Your task to perform on an android device: Is it going to rain tomorrow? Image 0: 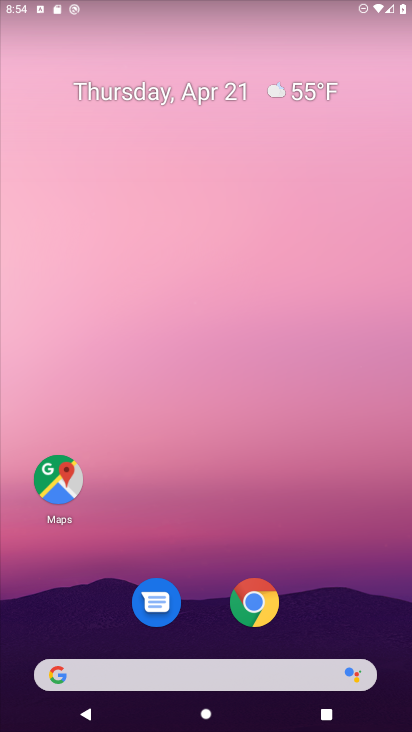
Step 0: click (134, 666)
Your task to perform on an android device: Is it going to rain tomorrow? Image 1: 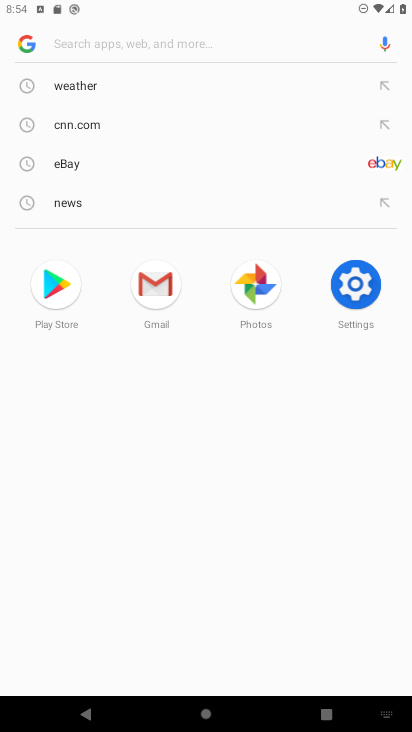
Step 1: click (88, 93)
Your task to perform on an android device: Is it going to rain tomorrow? Image 2: 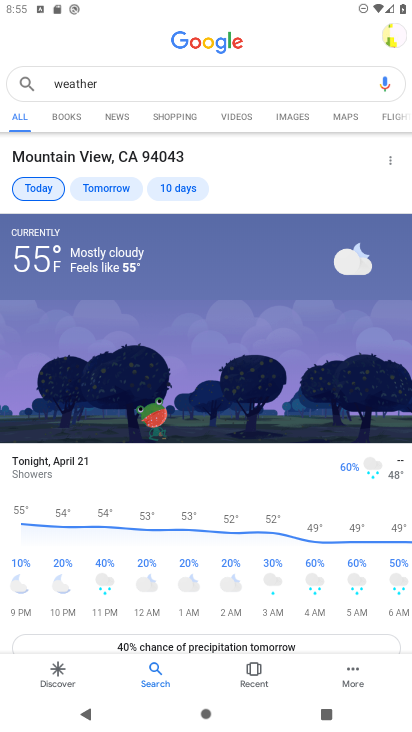
Step 2: click (117, 191)
Your task to perform on an android device: Is it going to rain tomorrow? Image 3: 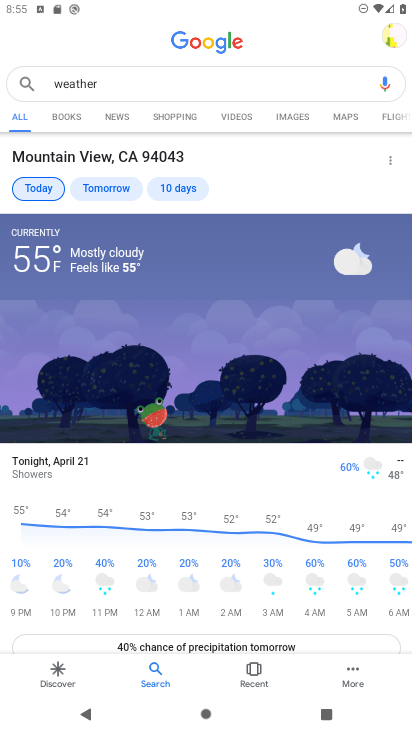
Step 3: click (117, 191)
Your task to perform on an android device: Is it going to rain tomorrow? Image 4: 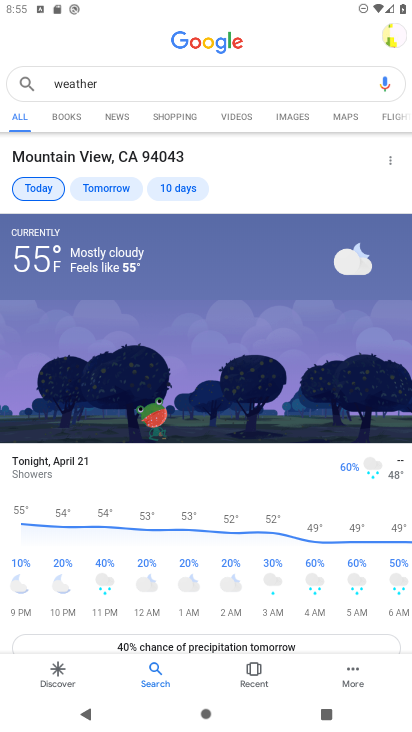
Step 4: click (99, 183)
Your task to perform on an android device: Is it going to rain tomorrow? Image 5: 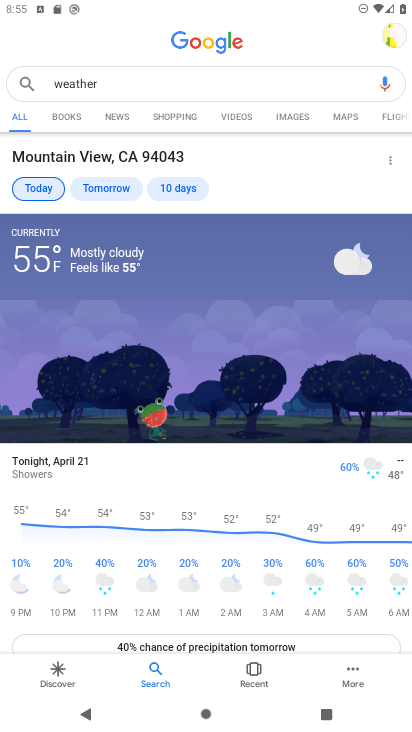
Step 5: click (99, 183)
Your task to perform on an android device: Is it going to rain tomorrow? Image 6: 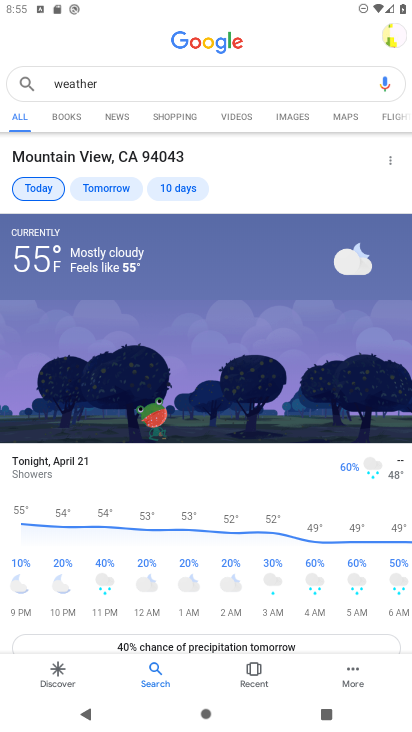
Step 6: click (105, 187)
Your task to perform on an android device: Is it going to rain tomorrow? Image 7: 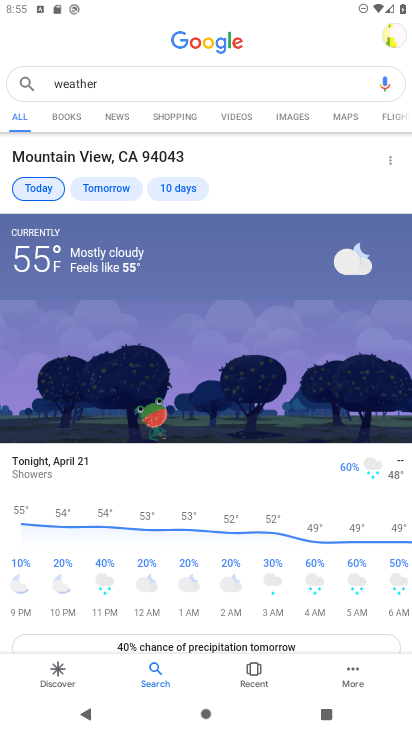
Step 7: click (105, 187)
Your task to perform on an android device: Is it going to rain tomorrow? Image 8: 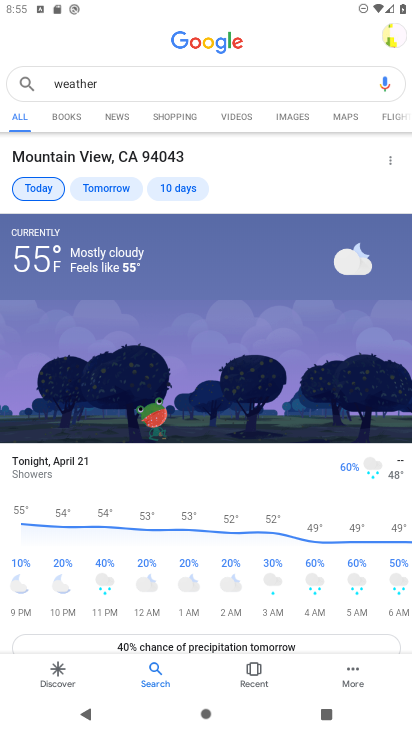
Step 8: click (105, 187)
Your task to perform on an android device: Is it going to rain tomorrow? Image 9: 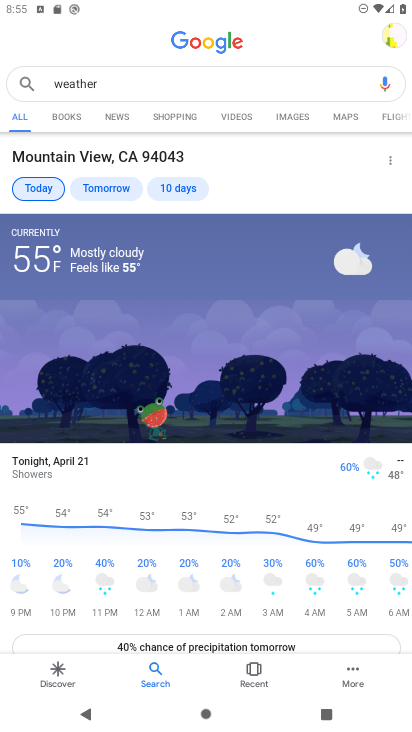
Step 9: click (105, 187)
Your task to perform on an android device: Is it going to rain tomorrow? Image 10: 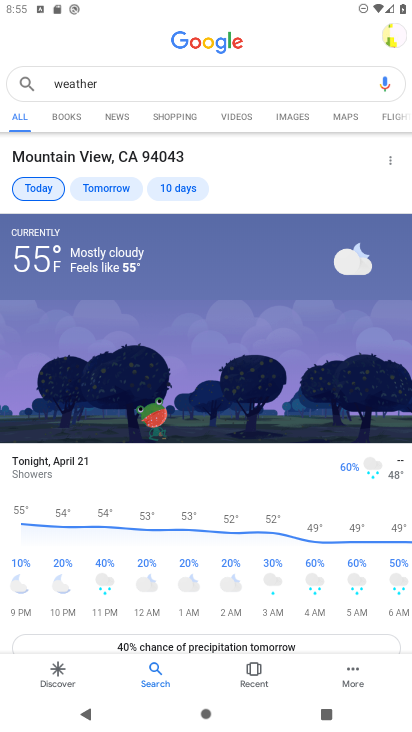
Step 10: click (105, 187)
Your task to perform on an android device: Is it going to rain tomorrow? Image 11: 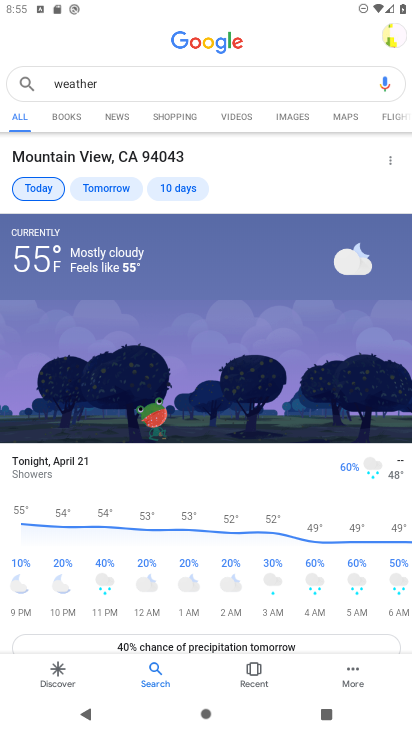
Step 11: click (110, 196)
Your task to perform on an android device: Is it going to rain tomorrow? Image 12: 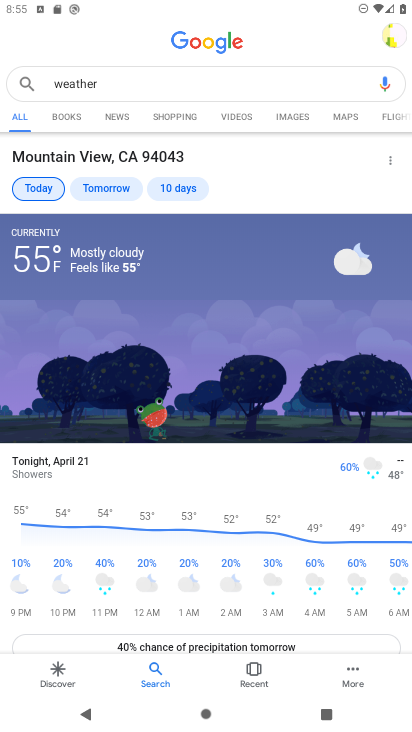
Step 12: click (110, 196)
Your task to perform on an android device: Is it going to rain tomorrow? Image 13: 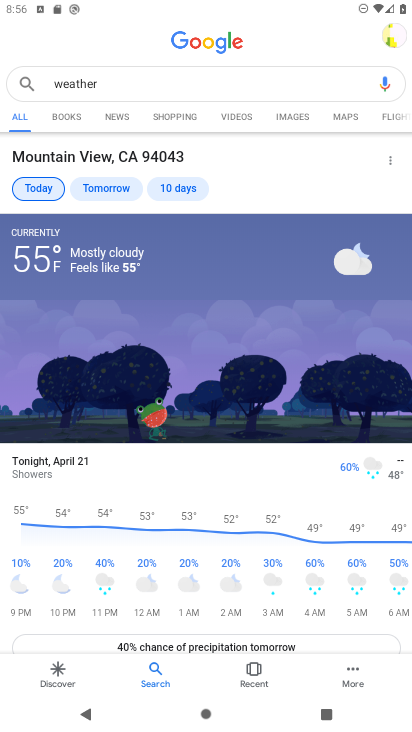
Step 13: click (127, 191)
Your task to perform on an android device: Is it going to rain tomorrow? Image 14: 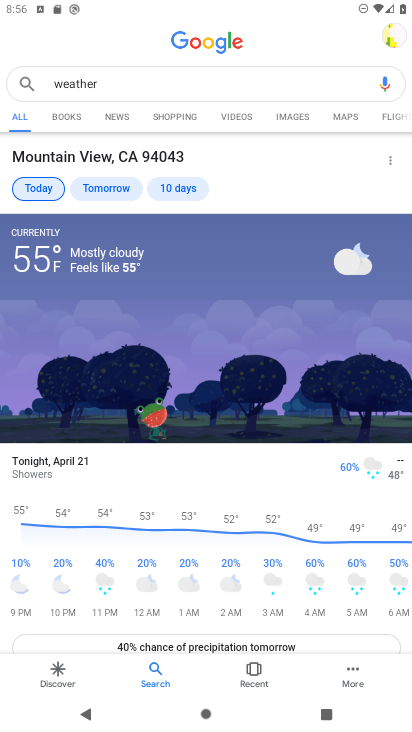
Step 14: click (86, 179)
Your task to perform on an android device: Is it going to rain tomorrow? Image 15: 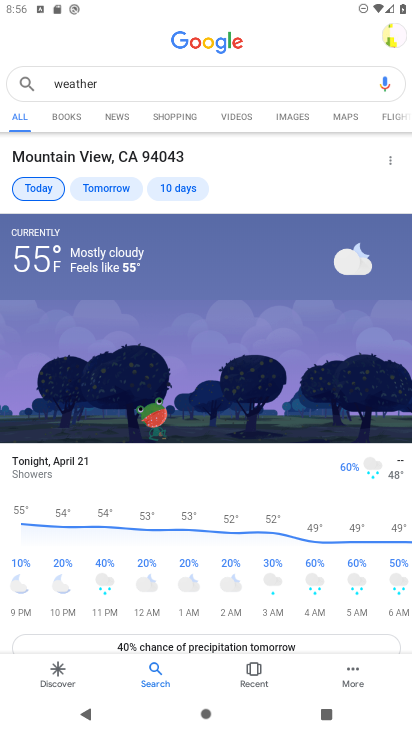
Step 15: click (86, 179)
Your task to perform on an android device: Is it going to rain tomorrow? Image 16: 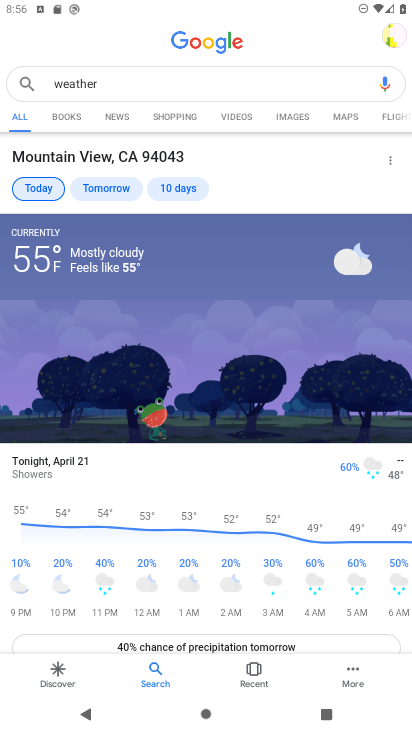
Step 16: click (92, 186)
Your task to perform on an android device: Is it going to rain tomorrow? Image 17: 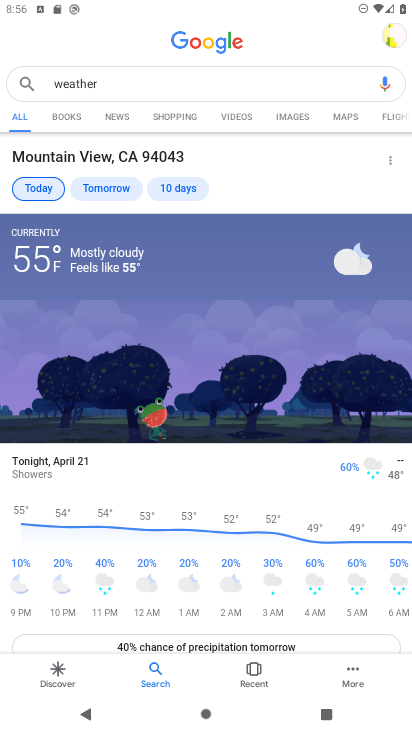
Step 17: click (92, 186)
Your task to perform on an android device: Is it going to rain tomorrow? Image 18: 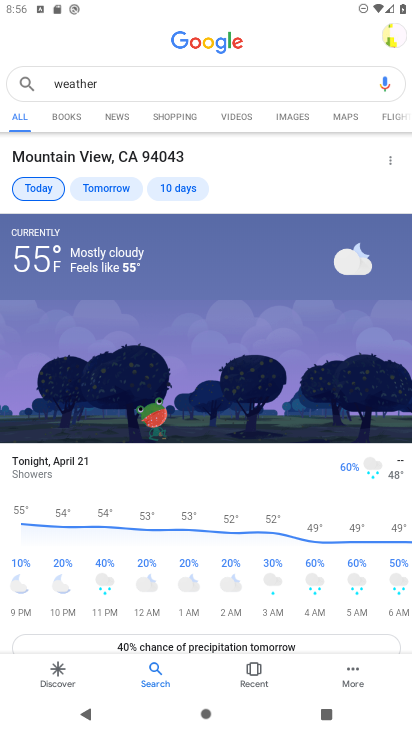
Step 18: click (92, 186)
Your task to perform on an android device: Is it going to rain tomorrow? Image 19: 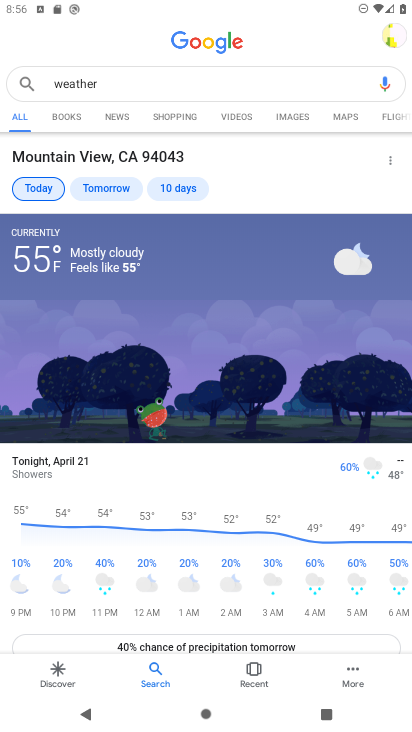
Step 19: click (92, 186)
Your task to perform on an android device: Is it going to rain tomorrow? Image 20: 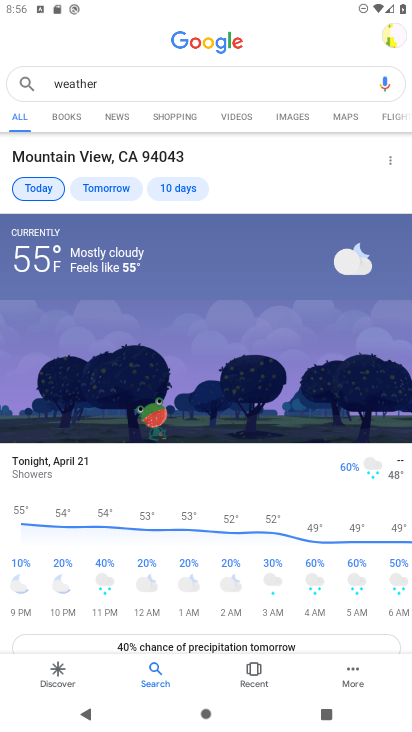
Step 20: click (92, 186)
Your task to perform on an android device: Is it going to rain tomorrow? Image 21: 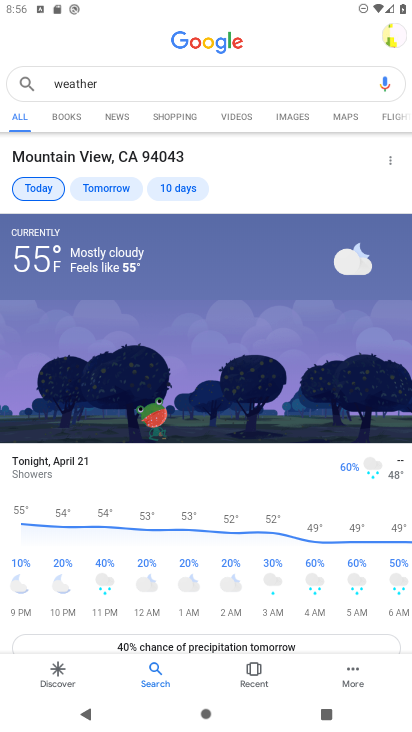
Step 21: click (107, 196)
Your task to perform on an android device: Is it going to rain tomorrow? Image 22: 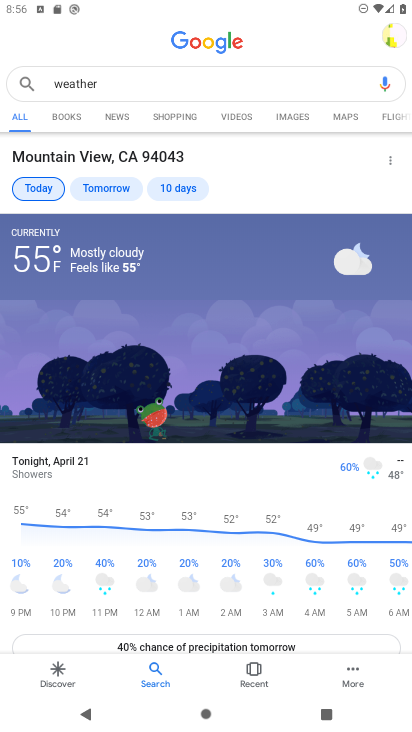
Step 22: click (107, 196)
Your task to perform on an android device: Is it going to rain tomorrow? Image 23: 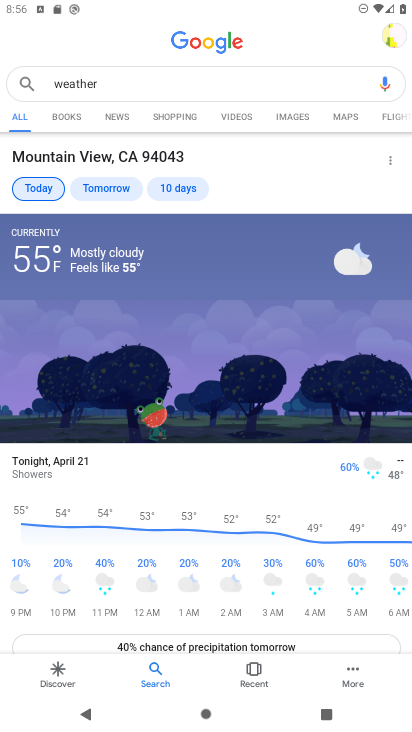
Step 23: click (107, 196)
Your task to perform on an android device: Is it going to rain tomorrow? Image 24: 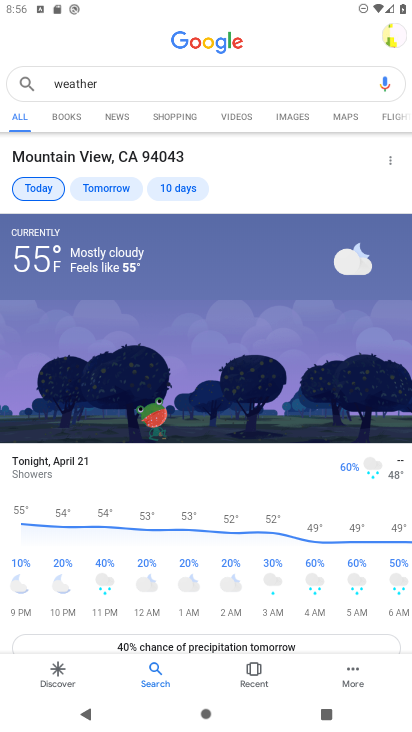
Step 24: click (107, 196)
Your task to perform on an android device: Is it going to rain tomorrow? Image 25: 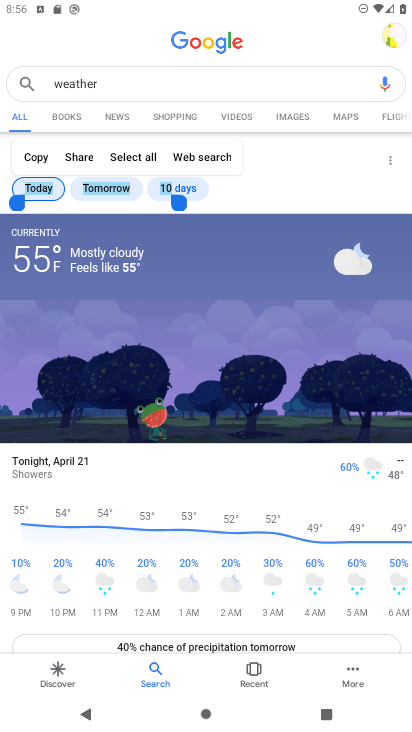
Step 25: click (107, 196)
Your task to perform on an android device: Is it going to rain tomorrow? Image 26: 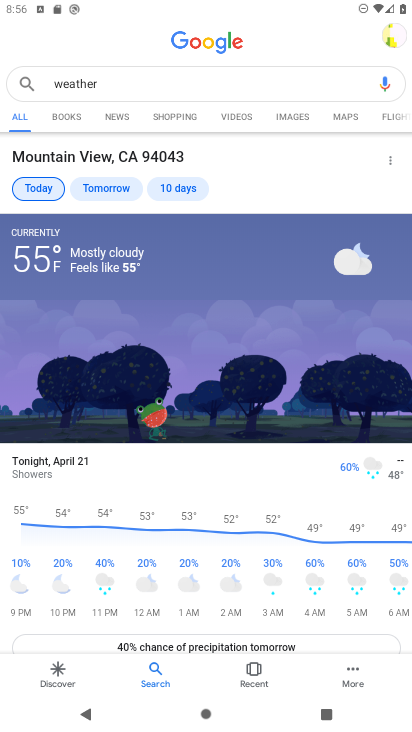
Step 26: click (106, 195)
Your task to perform on an android device: Is it going to rain tomorrow? Image 27: 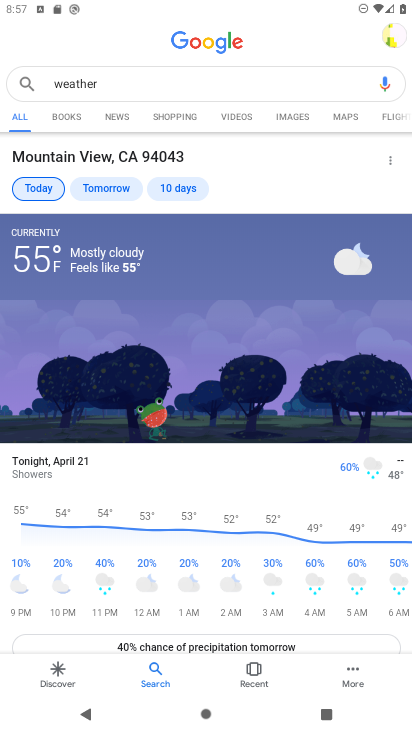
Step 27: task complete